Your task to perform on an android device: delete the emails in spam in the gmail app Image 0: 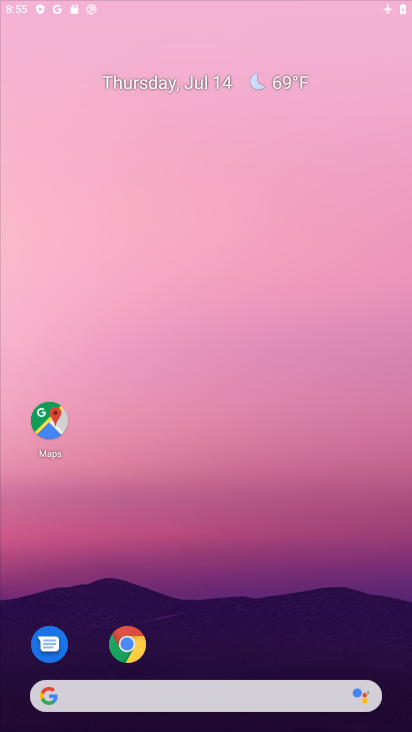
Step 0: click (224, 434)
Your task to perform on an android device: delete the emails in spam in the gmail app Image 1: 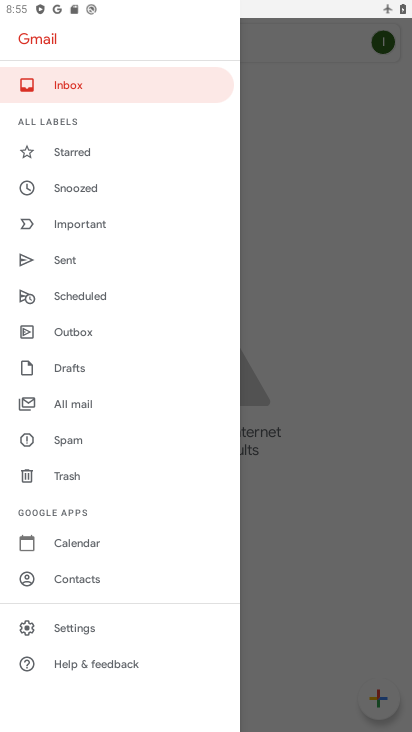
Step 1: click (99, 442)
Your task to perform on an android device: delete the emails in spam in the gmail app Image 2: 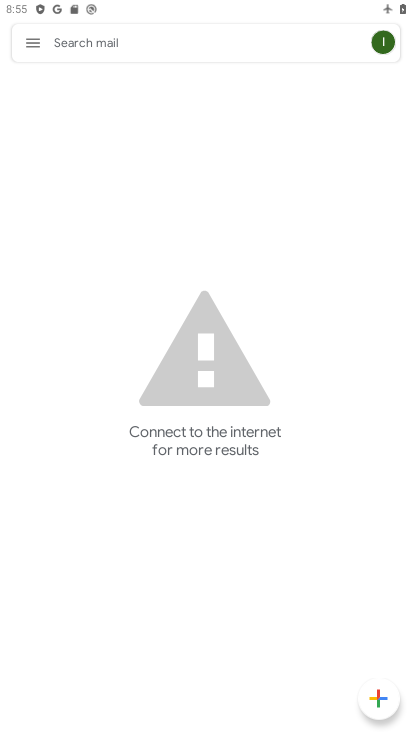
Step 2: task complete